Your task to perform on an android device: Go to accessibility settings Image 0: 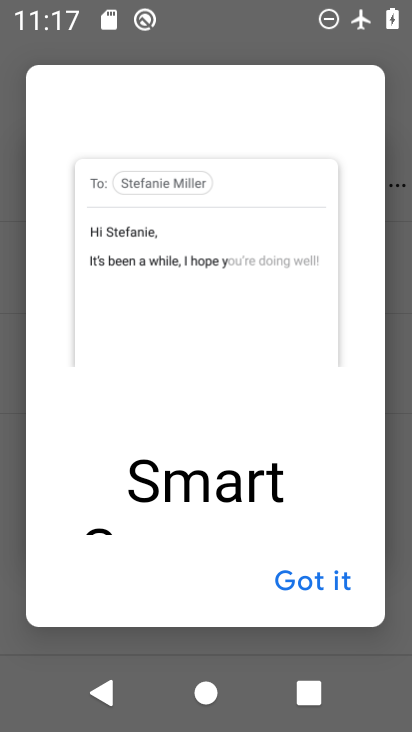
Step 0: press home button
Your task to perform on an android device: Go to accessibility settings Image 1: 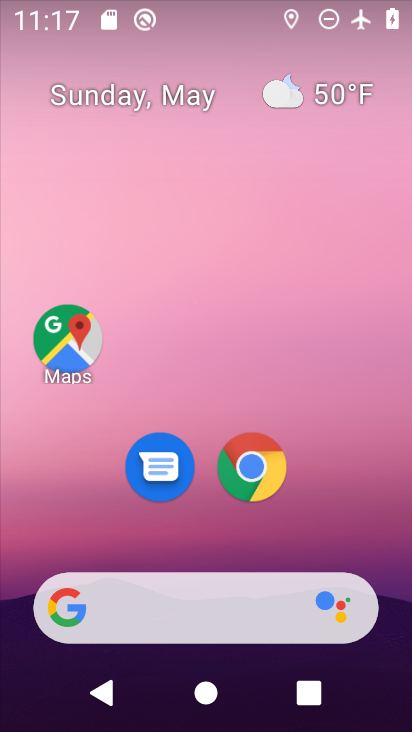
Step 1: drag from (220, 535) to (213, 197)
Your task to perform on an android device: Go to accessibility settings Image 2: 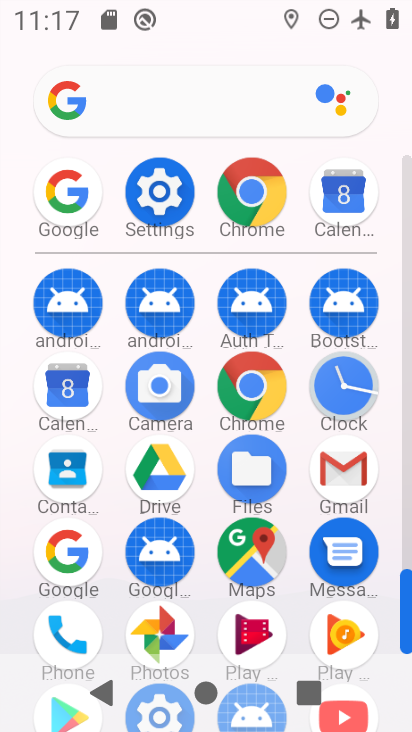
Step 2: click (154, 184)
Your task to perform on an android device: Go to accessibility settings Image 3: 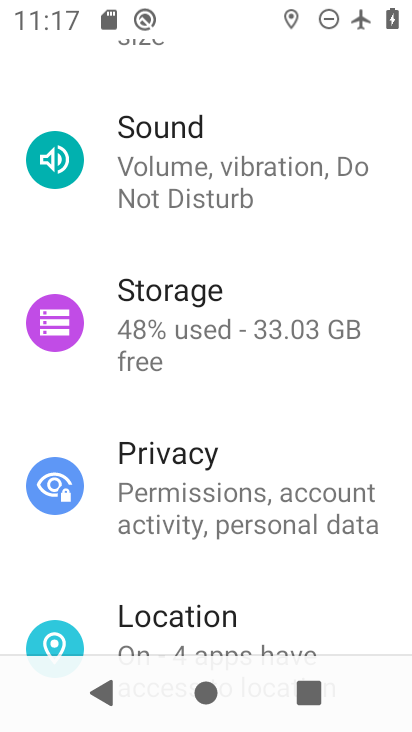
Step 3: drag from (210, 559) to (264, 170)
Your task to perform on an android device: Go to accessibility settings Image 4: 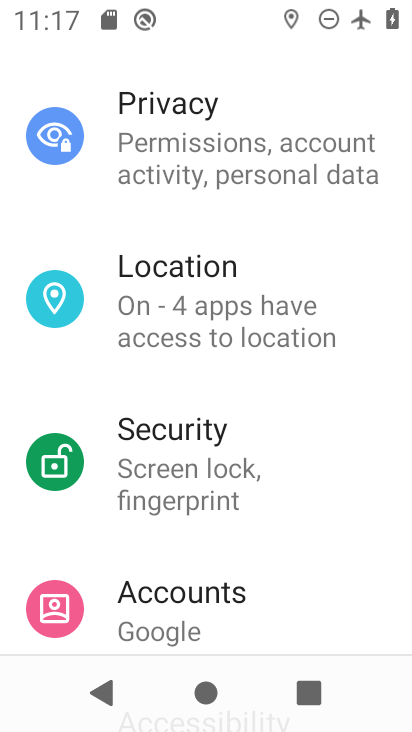
Step 4: drag from (255, 549) to (269, 287)
Your task to perform on an android device: Go to accessibility settings Image 5: 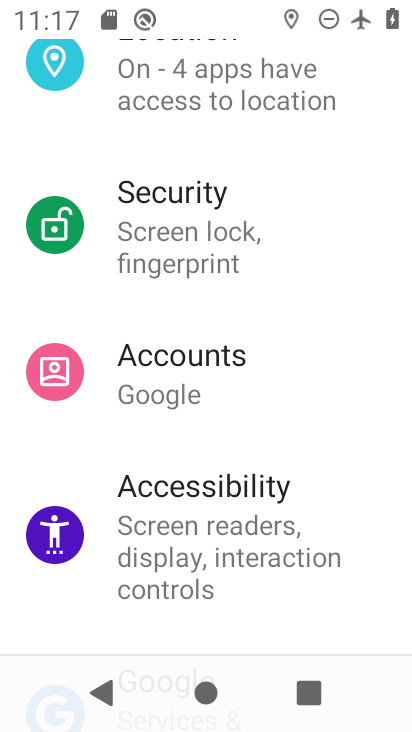
Step 5: click (242, 494)
Your task to perform on an android device: Go to accessibility settings Image 6: 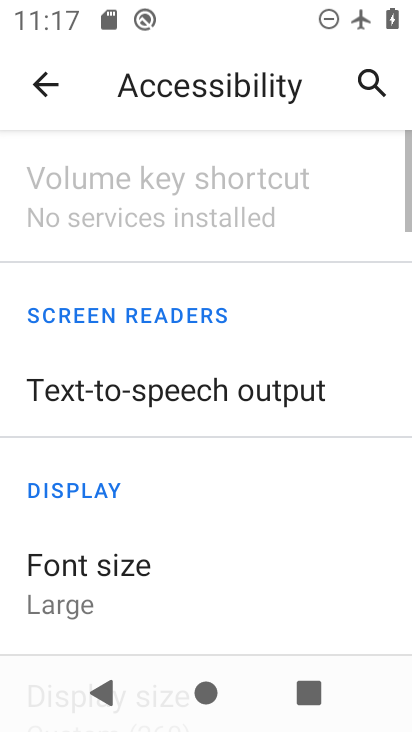
Step 6: task complete